Your task to perform on an android device: Check the weather Image 0: 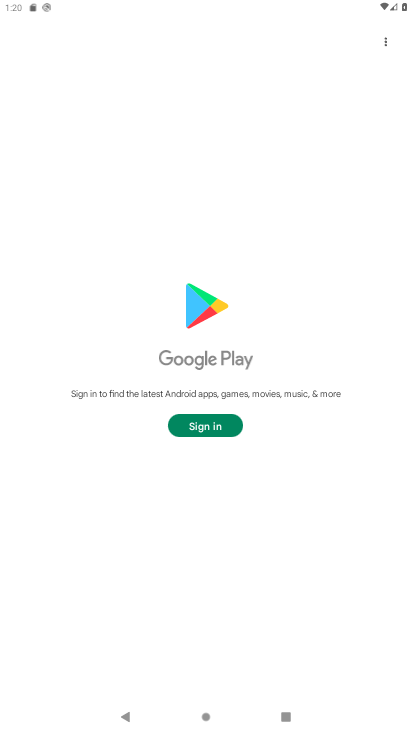
Step 0: press home button
Your task to perform on an android device: Check the weather Image 1: 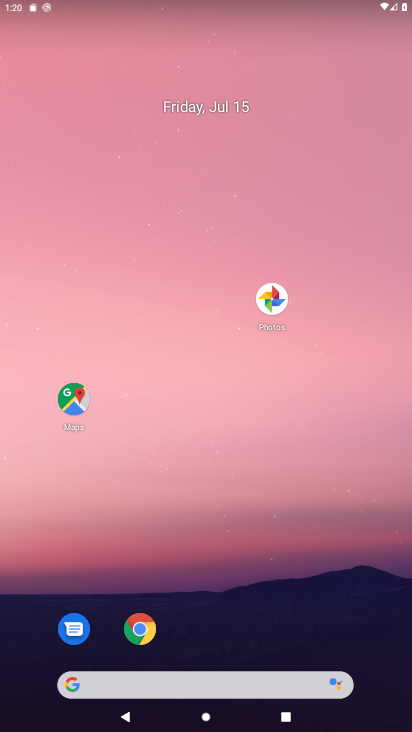
Step 1: click (138, 624)
Your task to perform on an android device: Check the weather Image 2: 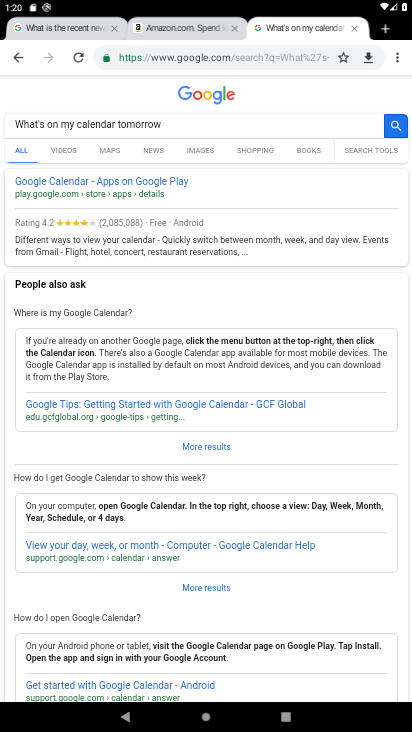
Step 2: click (353, 22)
Your task to perform on an android device: Check the weather Image 3: 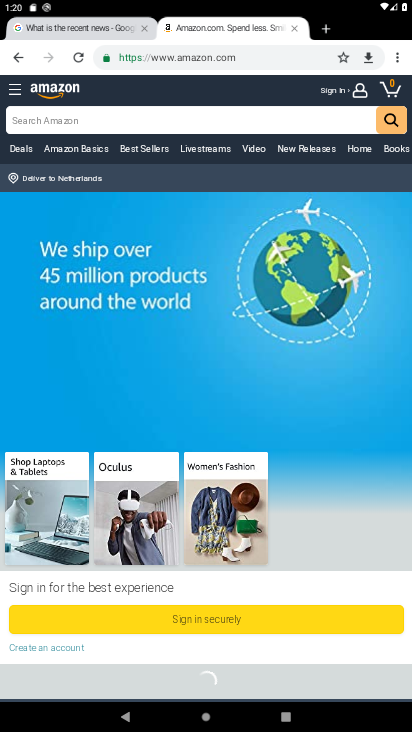
Step 3: click (328, 31)
Your task to perform on an android device: Check the weather Image 4: 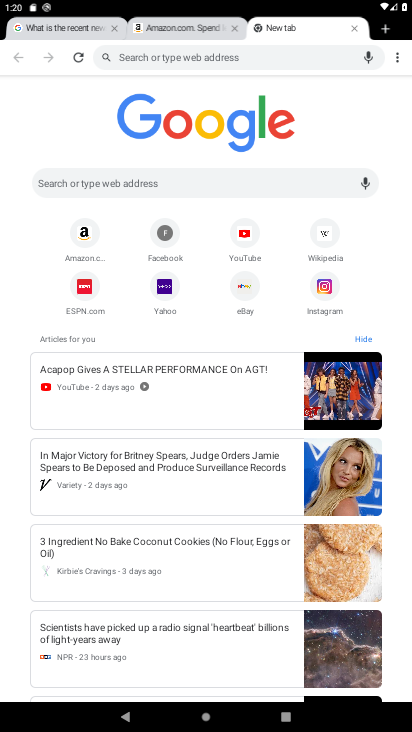
Step 4: click (186, 52)
Your task to perform on an android device: Check the weather Image 5: 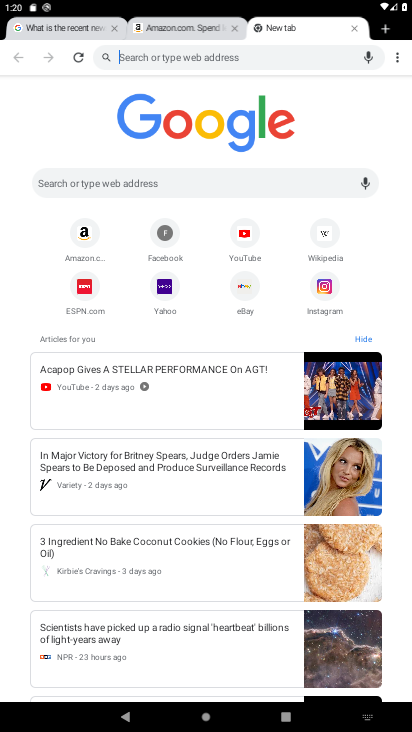
Step 5: click (222, 169)
Your task to perform on an android device: Check the weather Image 6: 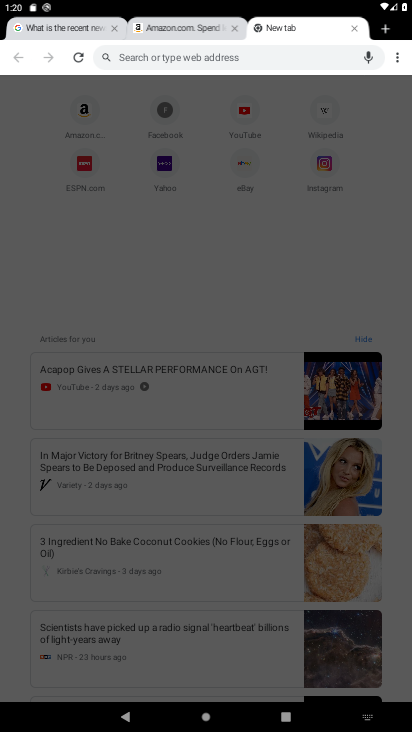
Step 6: type "Check the weather "
Your task to perform on an android device: Check the weather Image 7: 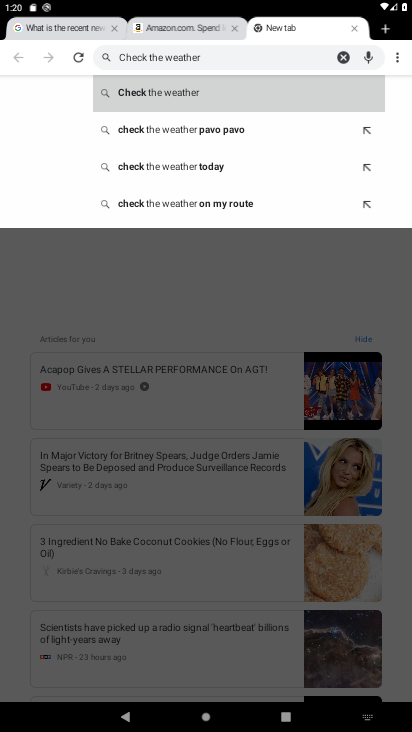
Step 7: click (185, 83)
Your task to perform on an android device: Check the weather Image 8: 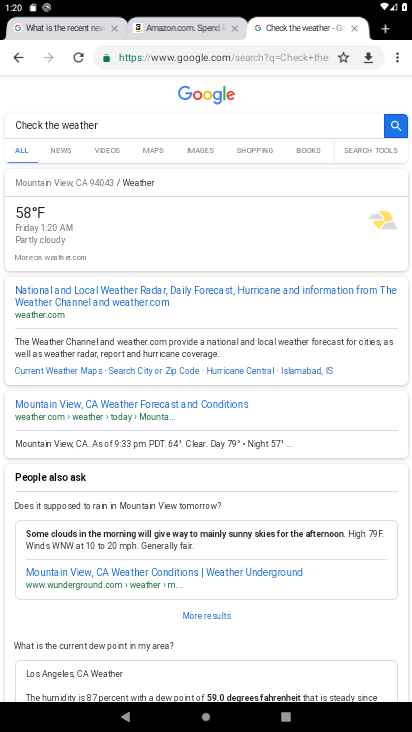
Step 8: task complete